Your task to perform on an android device: all mails in gmail Image 0: 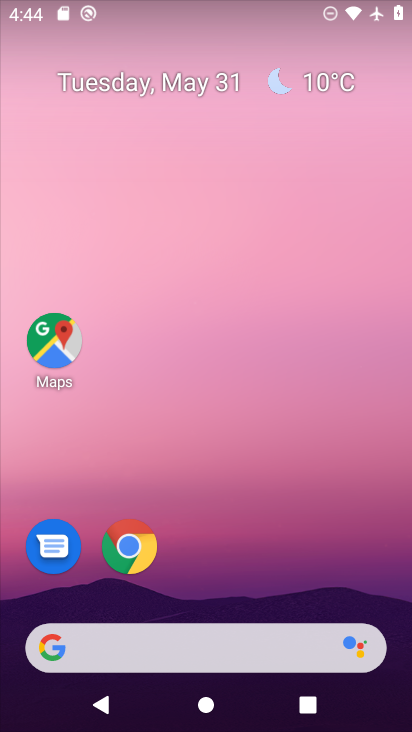
Step 0: drag from (246, 382) to (147, 82)
Your task to perform on an android device: all mails in gmail Image 1: 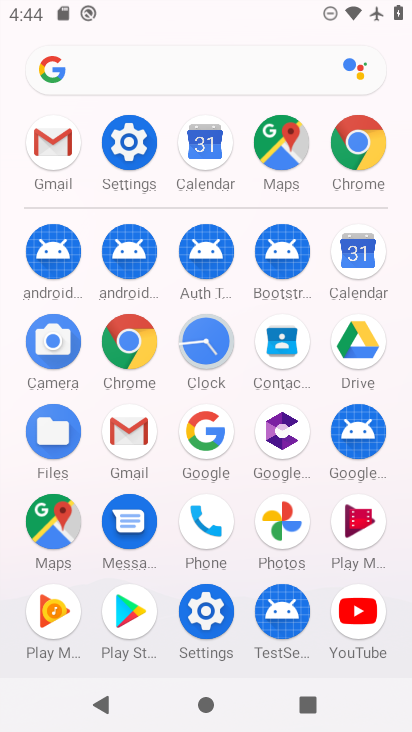
Step 1: click (67, 157)
Your task to perform on an android device: all mails in gmail Image 2: 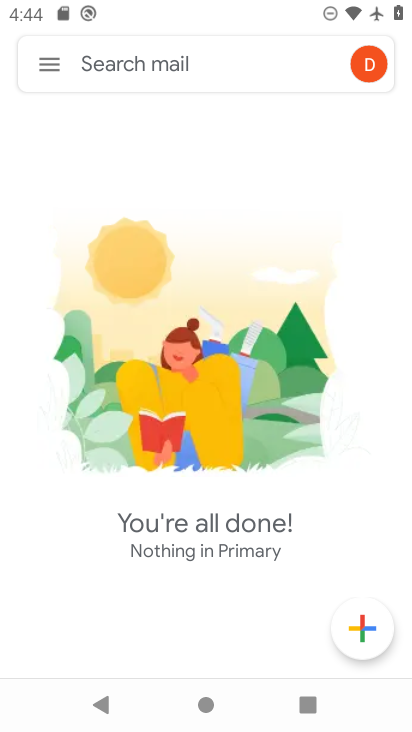
Step 2: click (50, 66)
Your task to perform on an android device: all mails in gmail Image 3: 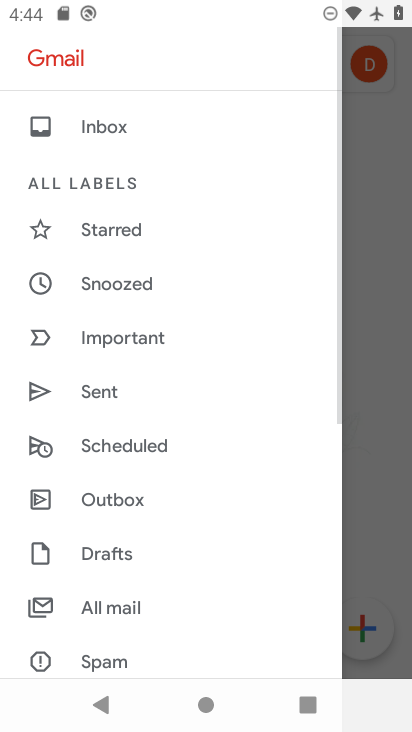
Step 3: click (154, 604)
Your task to perform on an android device: all mails in gmail Image 4: 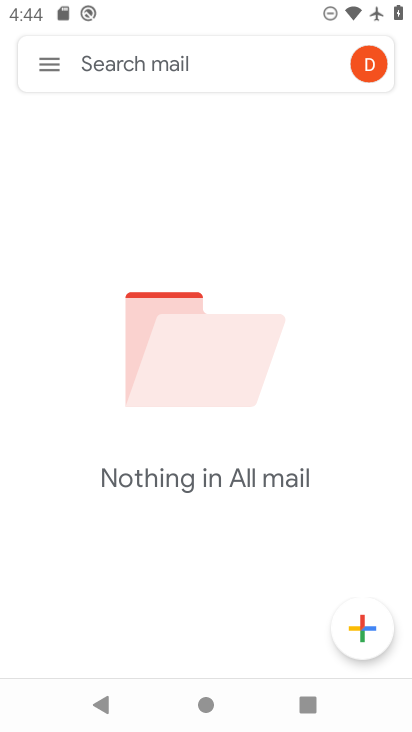
Step 4: task complete